Your task to perform on an android device: turn on airplane mode Image 0: 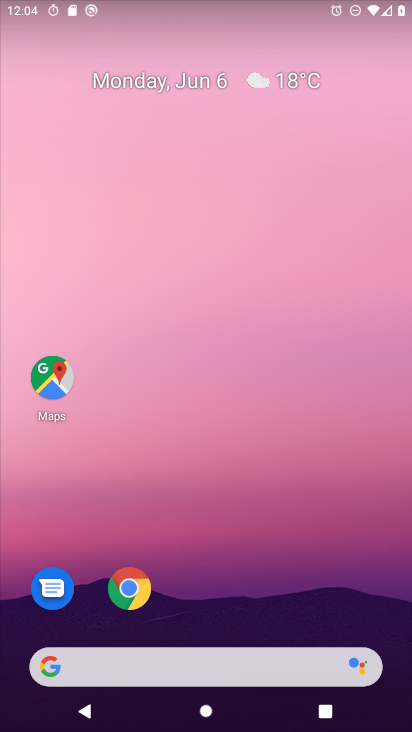
Step 0: drag from (352, 603) to (363, 158)
Your task to perform on an android device: turn on airplane mode Image 1: 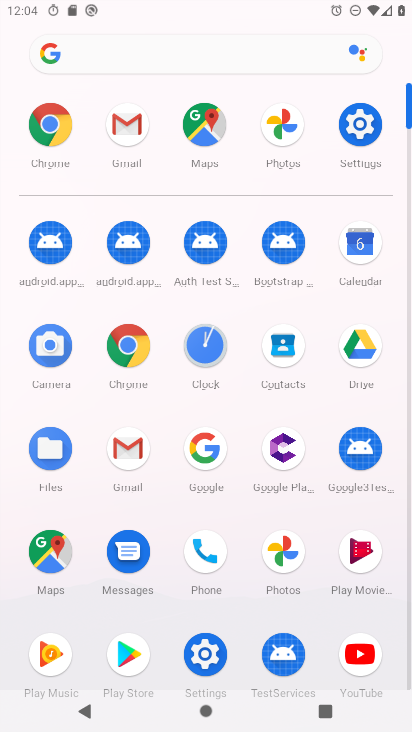
Step 1: click (362, 139)
Your task to perform on an android device: turn on airplane mode Image 2: 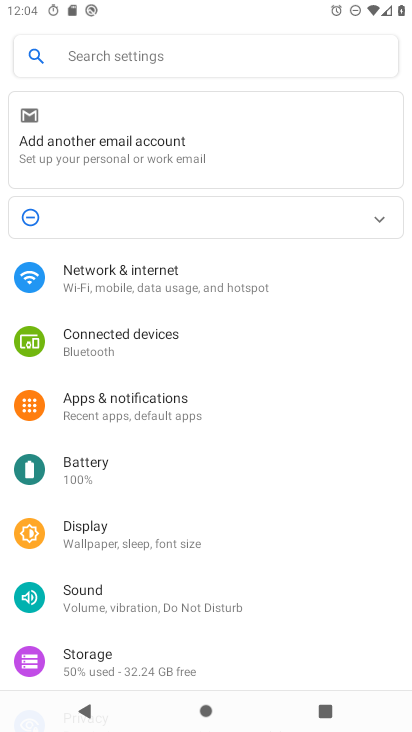
Step 2: drag from (344, 492) to (344, 403)
Your task to perform on an android device: turn on airplane mode Image 3: 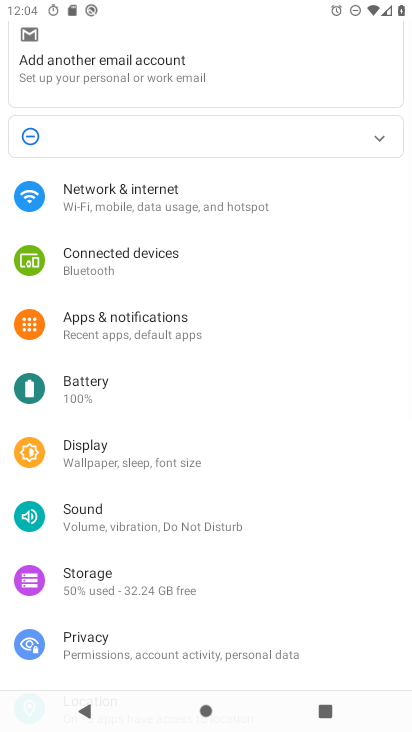
Step 3: drag from (348, 531) to (350, 369)
Your task to perform on an android device: turn on airplane mode Image 4: 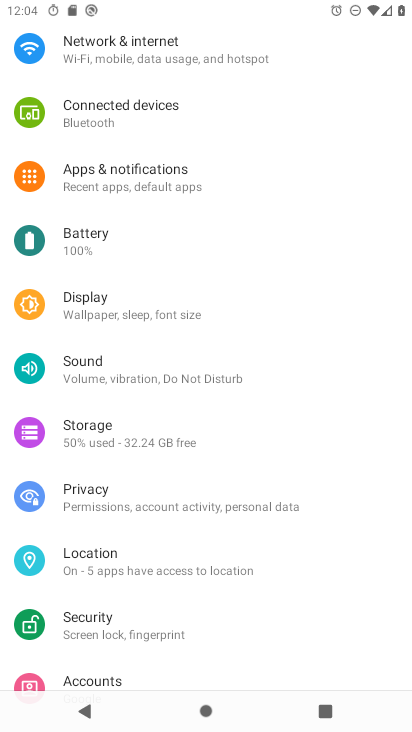
Step 4: drag from (344, 551) to (351, 429)
Your task to perform on an android device: turn on airplane mode Image 5: 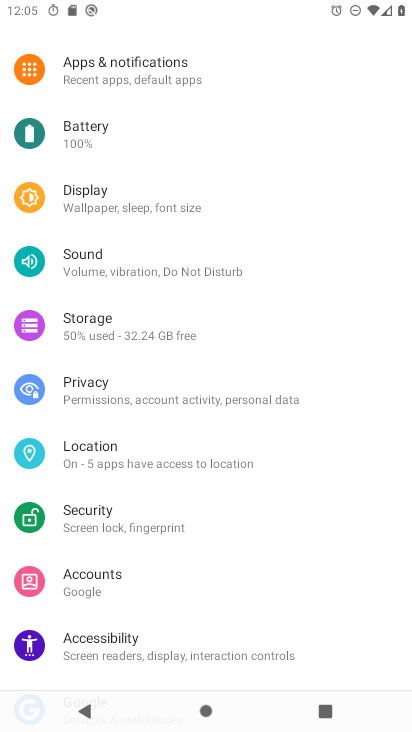
Step 5: drag from (350, 560) to (360, 407)
Your task to perform on an android device: turn on airplane mode Image 6: 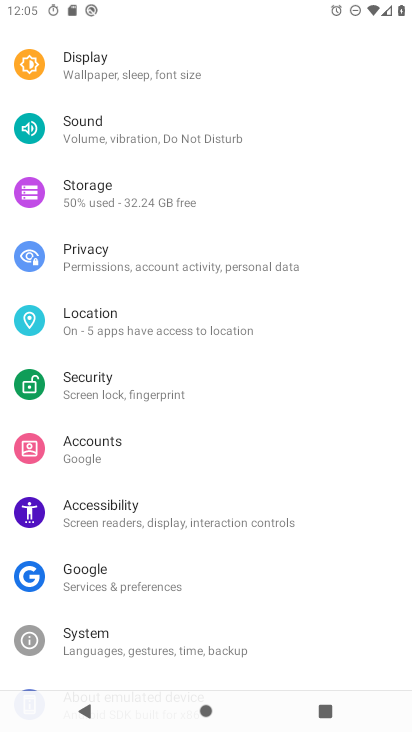
Step 6: drag from (363, 303) to (370, 374)
Your task to perform on an android device: turn on airplane mode Image 7: 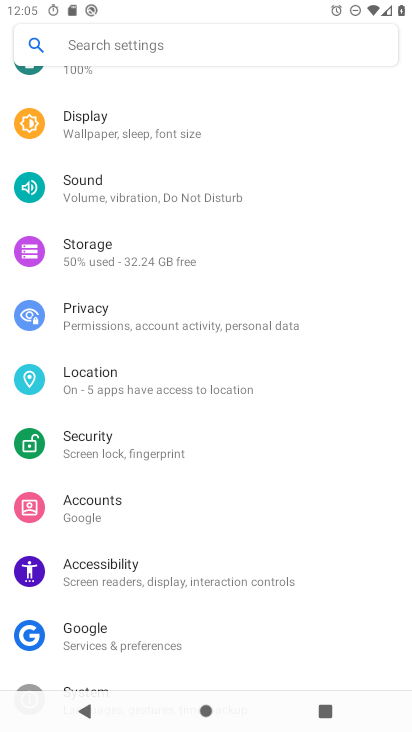
Step 7: drag from (367, 276) to (370, 360)
Your task to perform on an android device: turn on airplane mode Image 8: 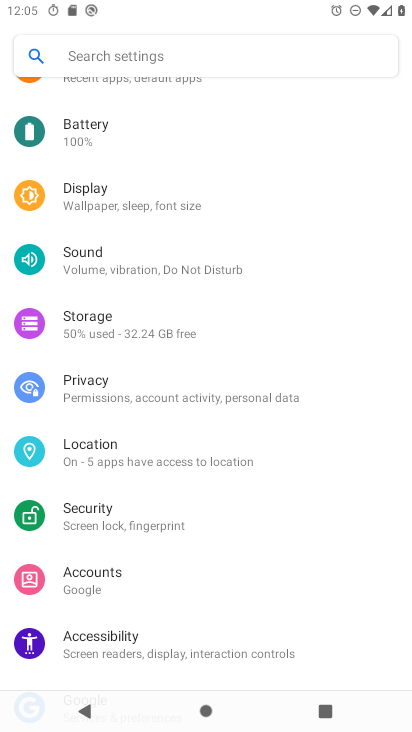
Step 8: drag from (328, 244) to (335, 326)
Your task to perform on an android device: turn on airplane mode Image 9: 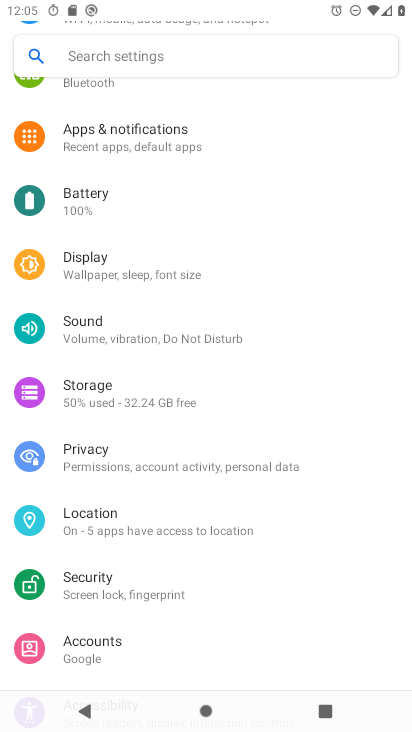
Step 9: drag from (339, 232) to (340, 323)
Your task to perform on an android device: turn on airplane mode Image 10: 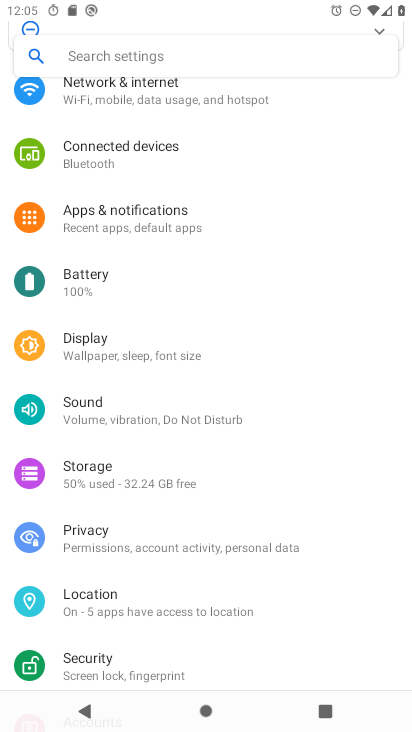
Step 10: drag from (344, 219) to (345, 327)
Your task to perform on an android device: turn on airplane mode Image 11: 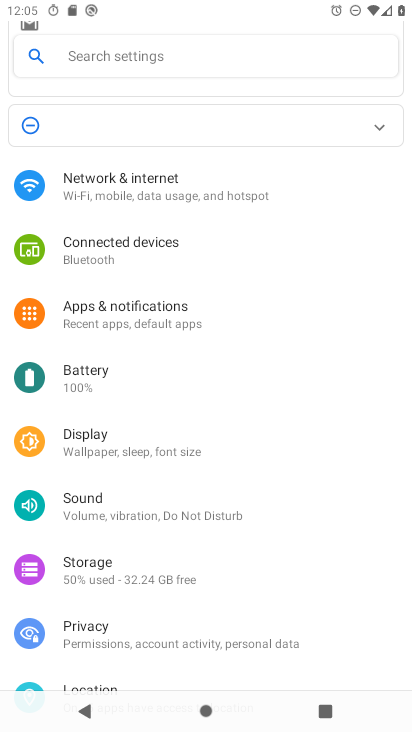
Step 11: click (264, 212)
Your task to perform on an android device: turn on airplane mode Image 12: 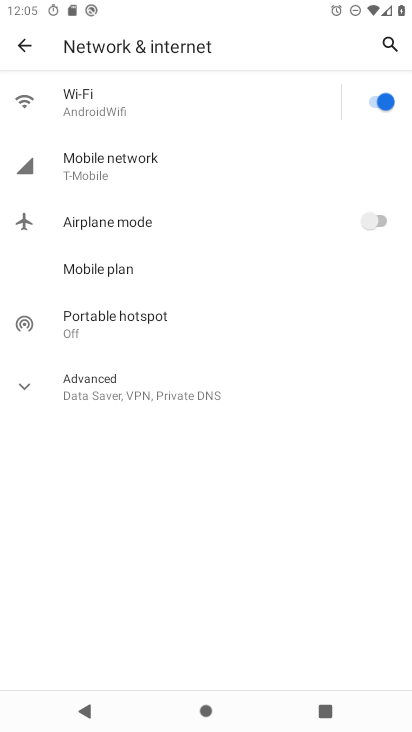
Step 12: click (377, 228)
Your task to perform on an android device: turn on airplane mode Image 13: 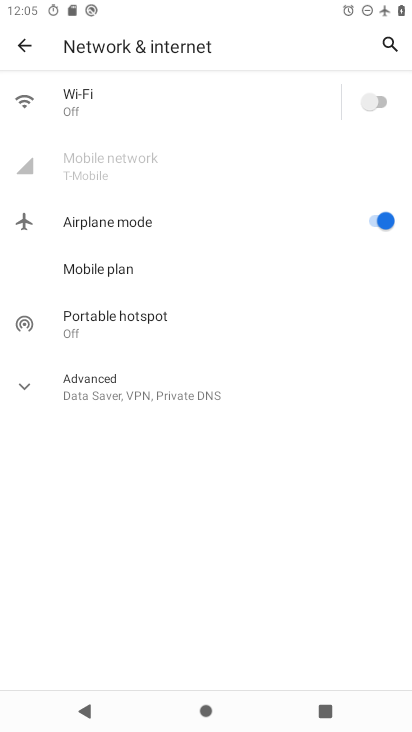
Step 13: task complete